Your task to perform on an android device: turn off notifications settings in the gmail app Image 0: 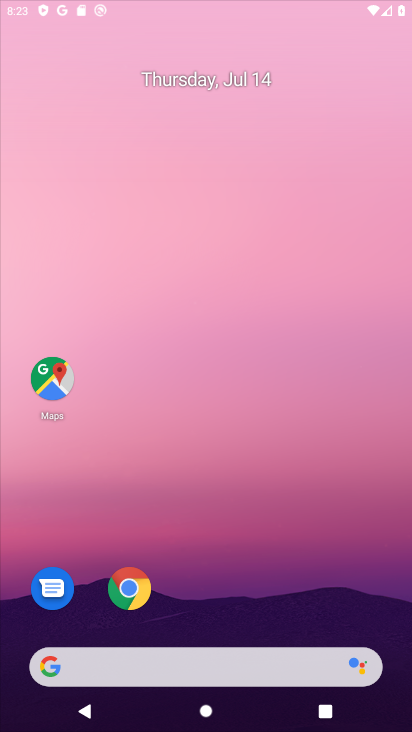
Step 0: drag from (304, 563) to (277, 145)
Your task to perform on an android device: turn off notifications settings in the gmail app Image 1: 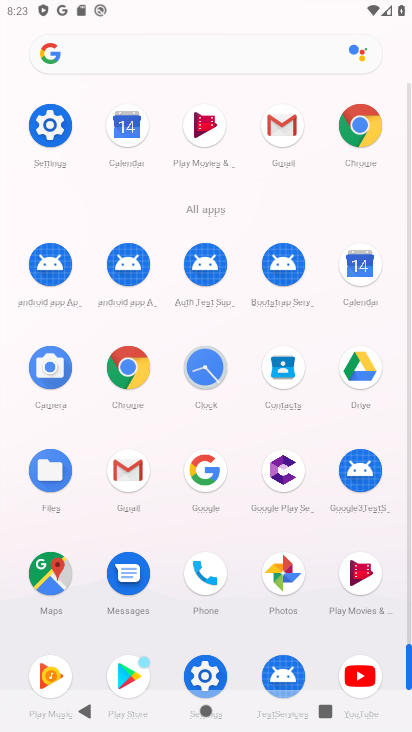
Step 1: click (126, 468)
Your task to perform on an android device: turn off notifications settings in the gmail app Image 2: 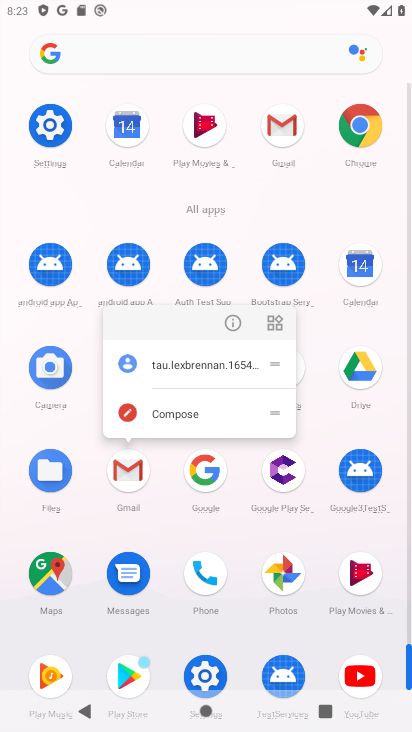
Step 2: click (281, 123)
Your task to perform on an android device: turn off notifications settings in the gmail app Image 3: 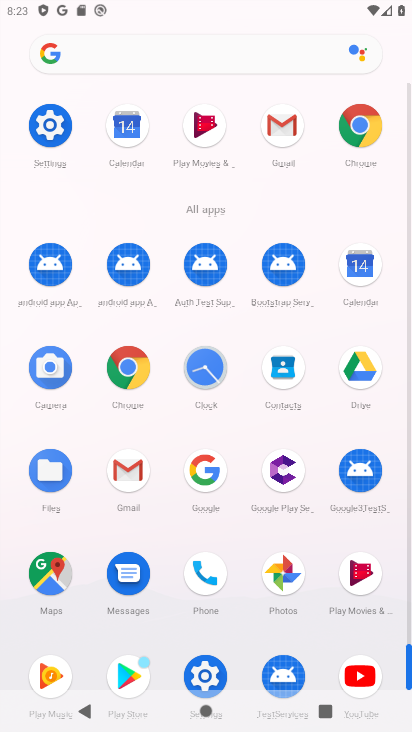
Step 3: click (288, 116)
Your task to perform on an android device: turn off notifications settings in the gmail app Image 4: 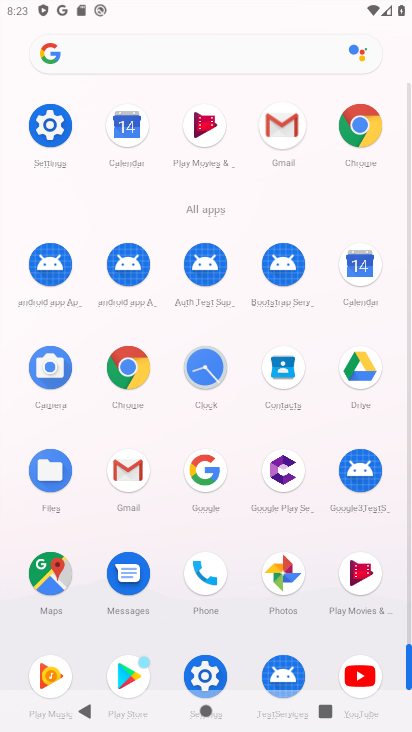
Step 4: click (287, 119)
Your task to perform on an android device: turn off notifications settings in the gmail app Image 5: 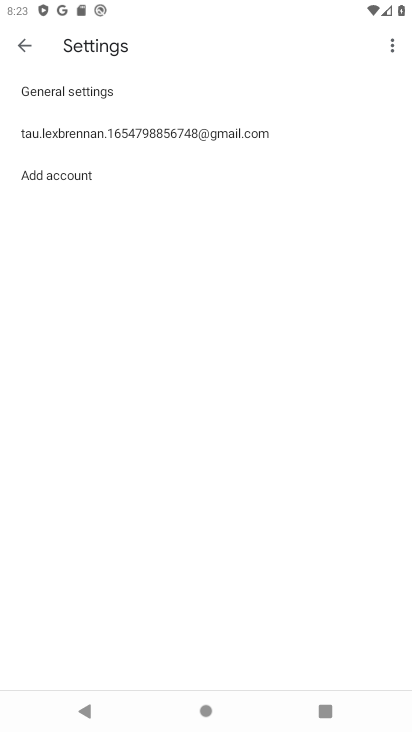
Step 5: click (111, 132)
Your task to perform on an android device: turn off notifications settings in the gmail app Image 6: 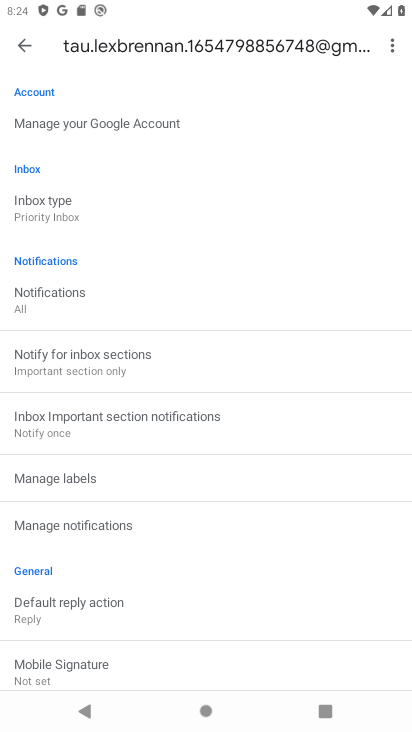
Step 6: click (45, 293)
Your task to perform on an android device: turn off notifications settings in the gmail app Image 7: 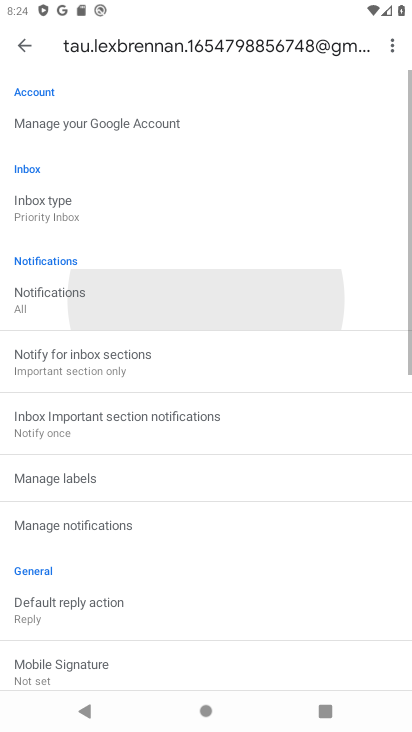
Step 7: click (45, 293)
Your task to perform on an android device: turn off notifications settings in the gmail app Image 8: 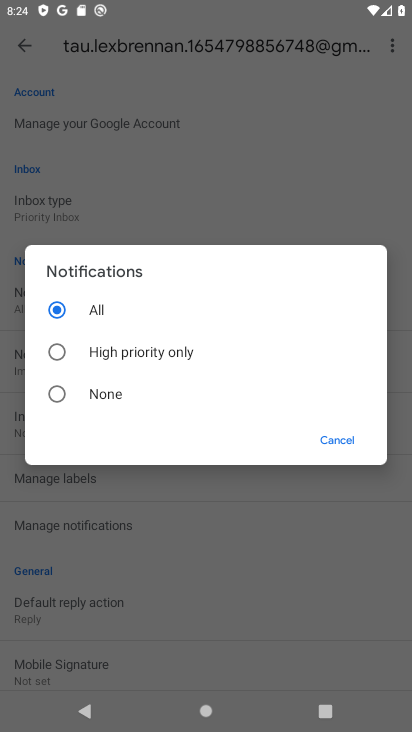
Step 8: click (53, 355)
Your task to perform on an android device: turn off notifications settings in the gmail app Image 9: 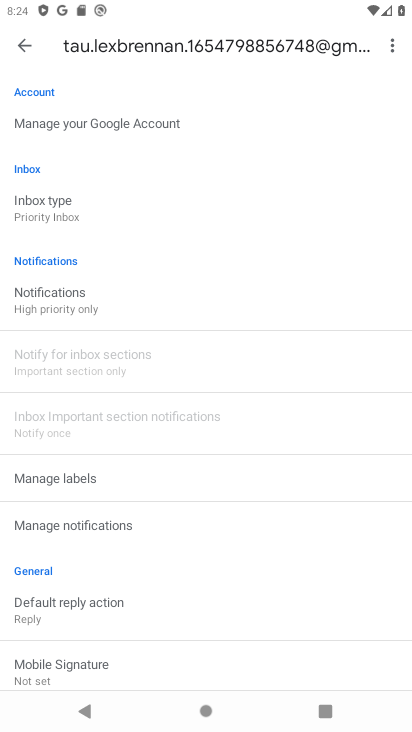
Step 9: task complete